Your task to perform on an android device: Set the phone to "Do not disturb". Image 0: 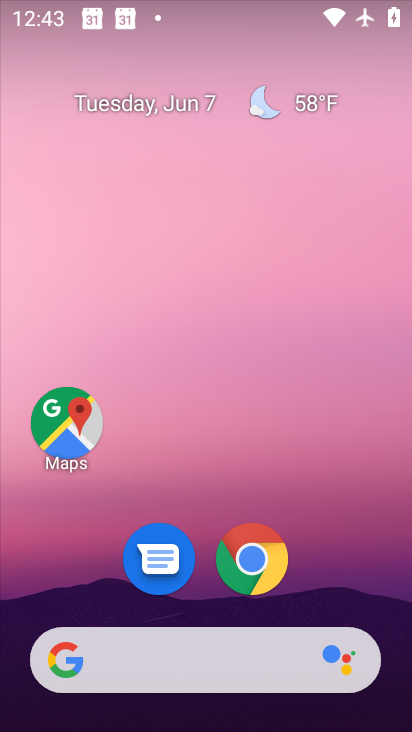
Step 0: drag from (395, 634) to (315, 59)
Your task to perform on an android device: Set the phone to "Do not disturb". Image 1: 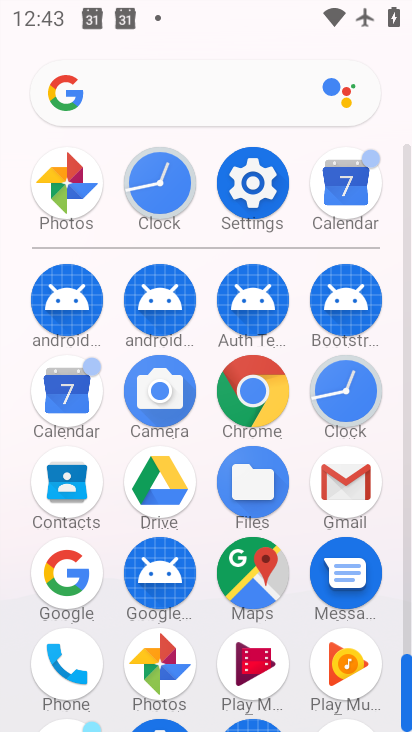
Step 1: click (409, 626)
Your task to perform on an android device: Set the phone to "Do not disturb". Image 2: 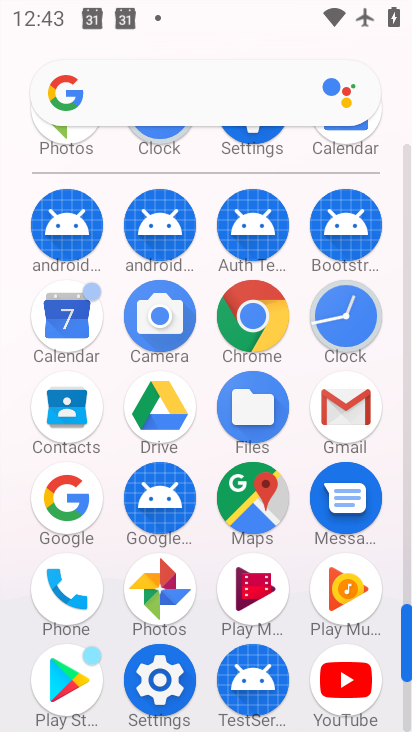
Step 2: click (164, 680)
Your task to perform on an android device: Set the phone to "Do not disturb". Image 3: 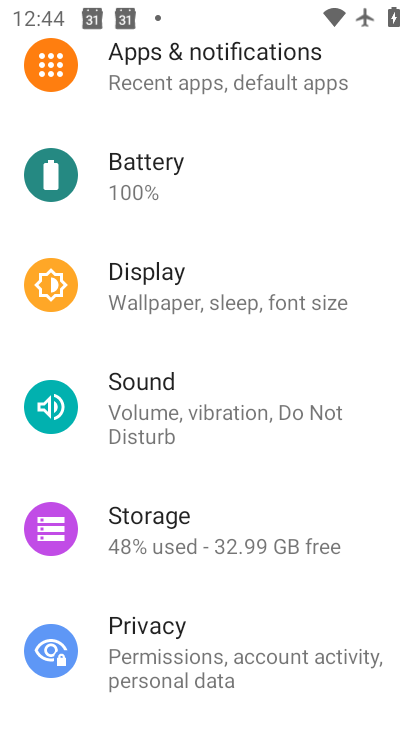
Step 3: click (150, 393)
Your task to perform on an android device: Set the phone to "Do not disturb". Image 4: 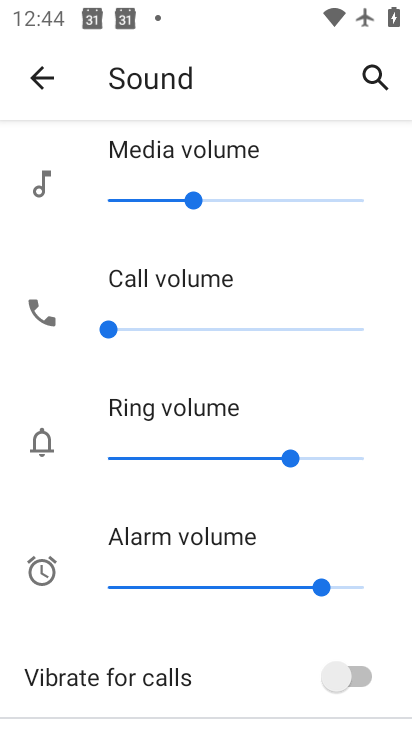
Step 4: drag from (391, 682) to (338, 215)
Your task to perform on an android device: Set the phone to "Do not disturb". Image 5: 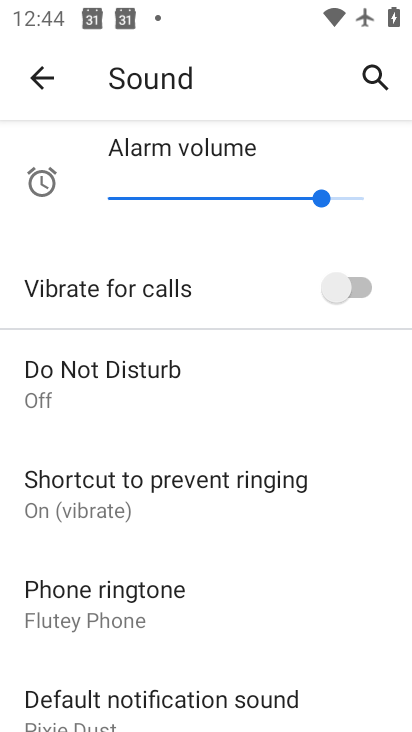
Step 5: click (70, 371)
Your task to perform on an android device: Set the phone to "Do not disturb". Image 6: 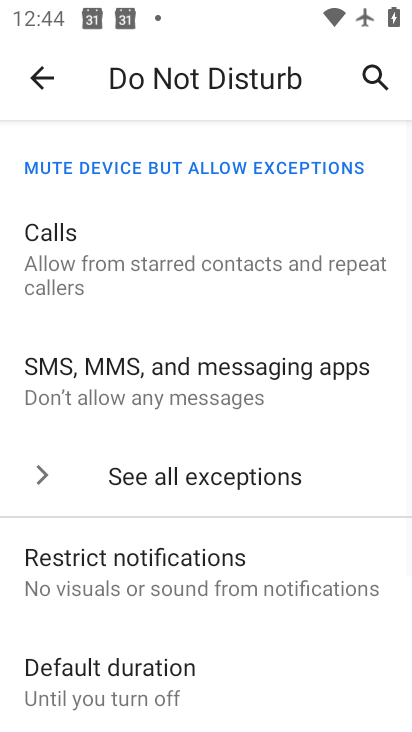
Step 6: drag from (278, 659) to (311, 138)
Your task to perform on an android device: Set the phone to "Do not disturb". Image 7: 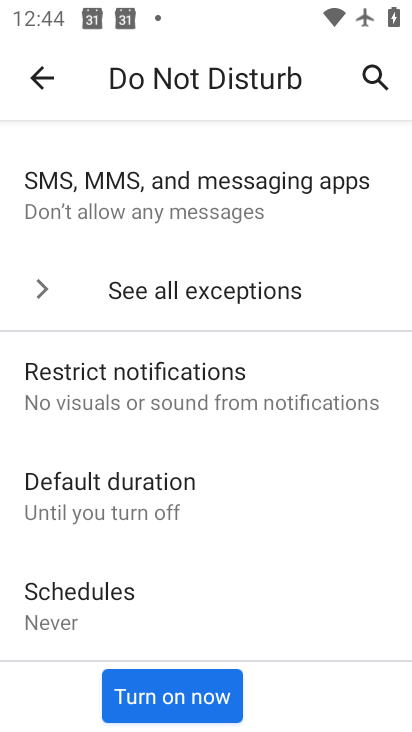
Step 7: click (170, 703)
Your task to perform on an android device: Set the phone to "Do not disturb". Image 8: 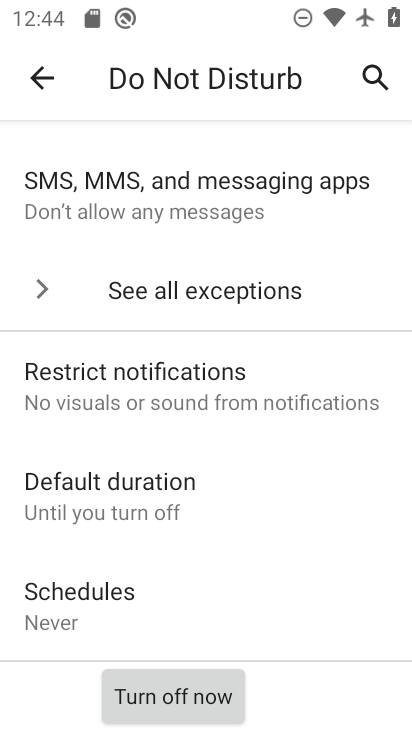
Step 8: task complete